Your task to perform on an android device: change alarm snooze length Image 0: 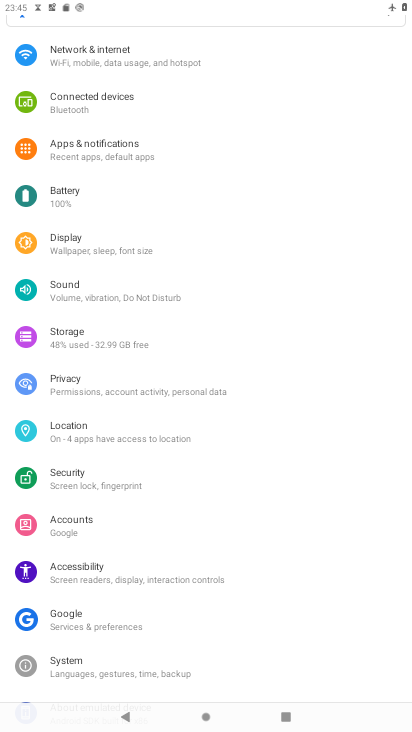
Step 0: press home button
Your task to perform on an android device: change alarm snooze length Image 1: 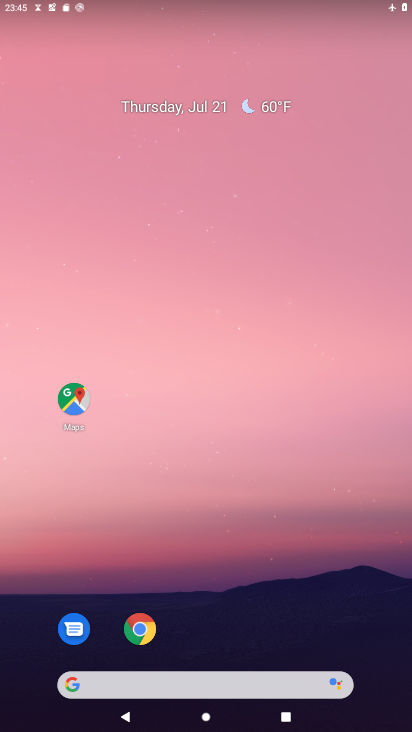
Step 1: drag from (245, 643) to (264, 238)
Your task to perform on an android device: change alarm snooze length Image 2: 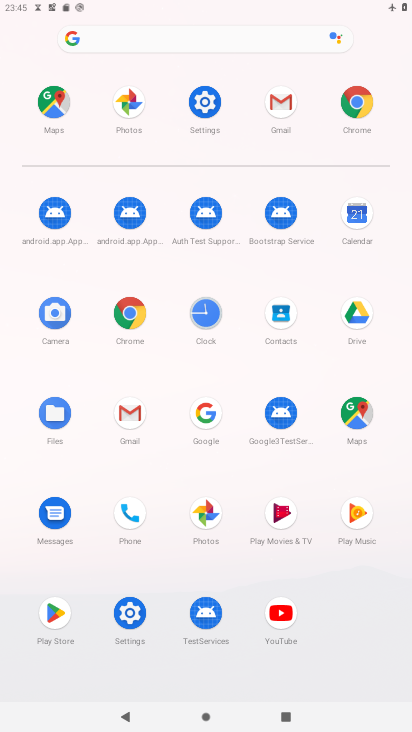
Step 2: click (205, 312)
Your task to perform on an android device: change alarm snooze length Image 3: 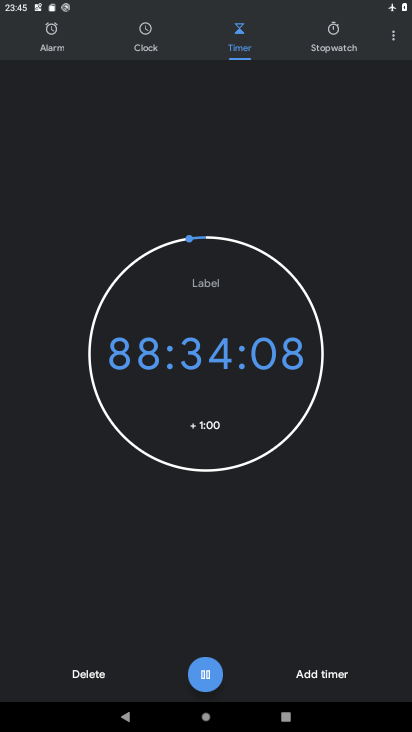
Step 3: click (403, 40)
Your task to perform on an android device: change alarm snooze length Image 4: 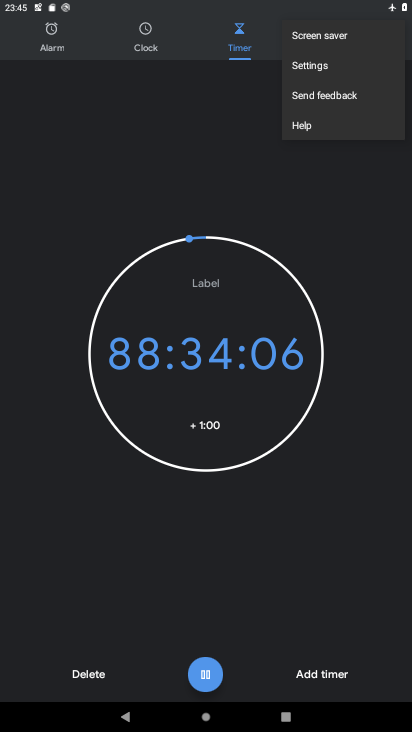
Step 4: click (332, 60)
Your task to perform on an android device: change alarm snooze length Image 5: 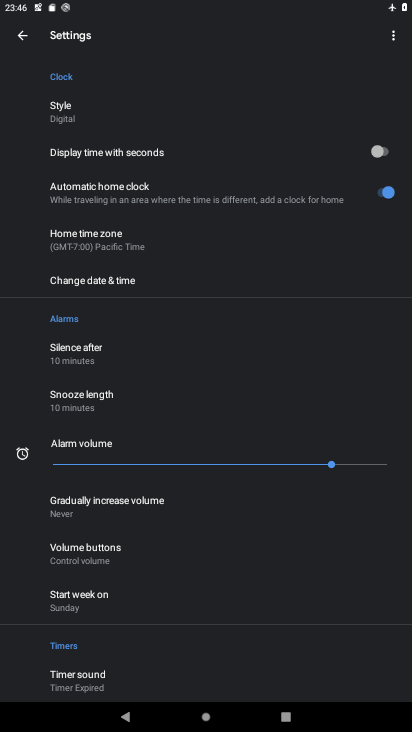
Step 5: drag from (186, 558) to (184, 328)
Your task to perform on an android device: change alarm snooze length Image 6: 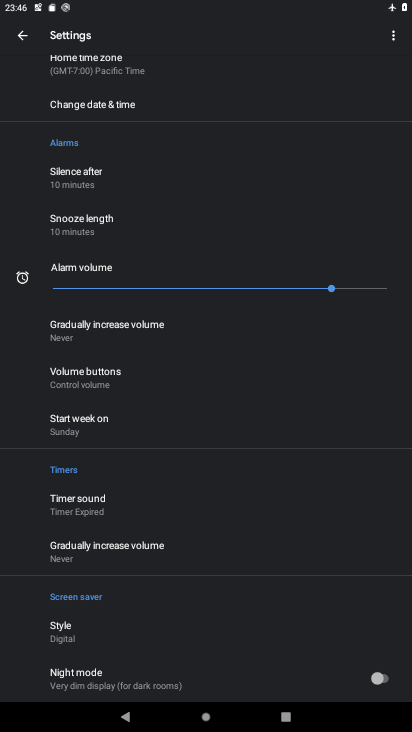
Step 6: click (111, 216)
Your task to perform on an android device: change alarm snooze length Image 7: 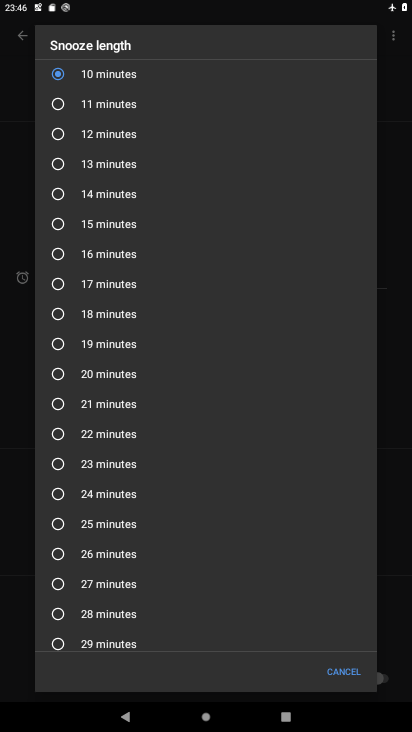
Step 7: click (115, 579)
Your task to perform on an android device: change alarm snooze length Image 8: 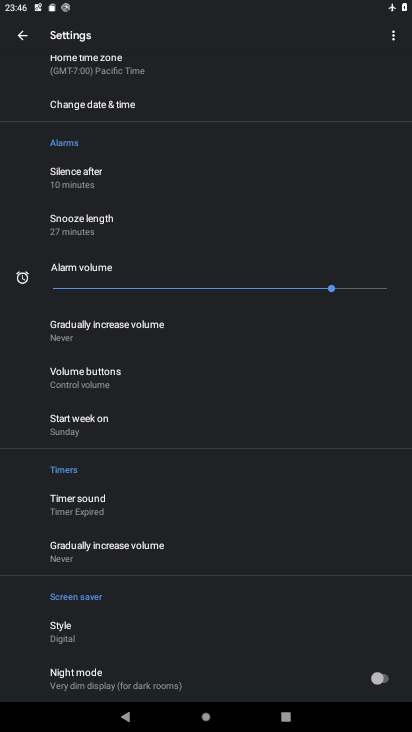
Step 8: task complete